Your task to perform on an android device: see creations saved in the google photos Image 0: 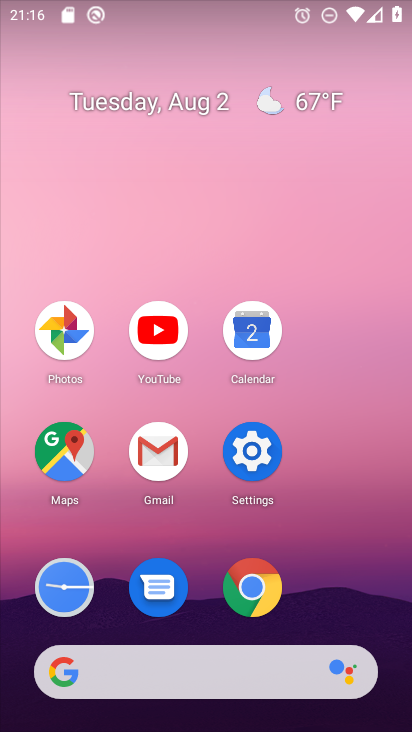
Step 0: click (62, 329)
Your task to perform on an android device: see creations saved in the google photos Image 1: 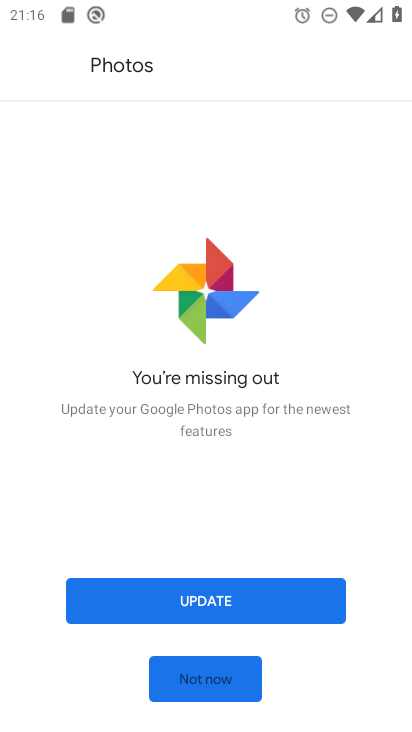
Step 1: click (205, 598)
Your task to perform on an android device: see creations saved in the google photos Image 2: 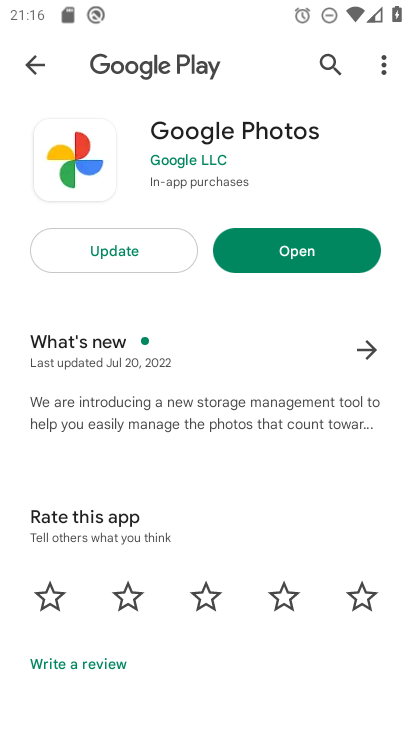
Step 2: click (129, 258)
Your task to perform on an android device: see creations saved in the google photos Image 3: 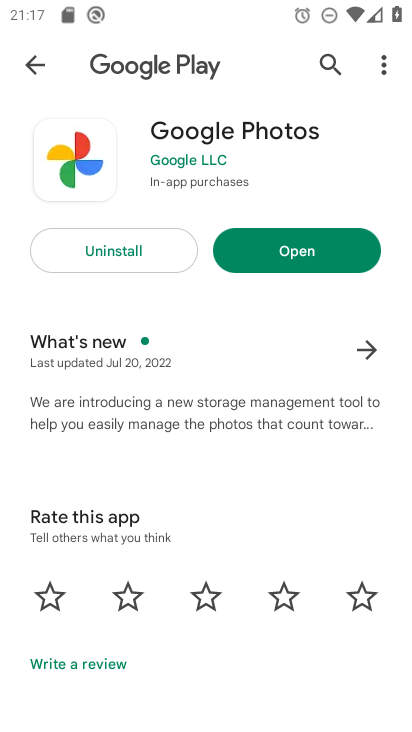
Step 3: click (295, 252)
Your task to perform on an android device: see creations saved in the google photos Image 4: 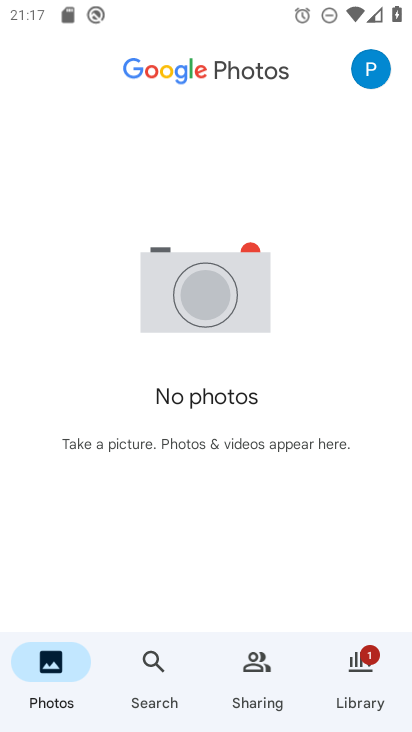
Step 4: click (151, 661)
Your task to perform on an android device: see creations saved in the google photos Image 5: 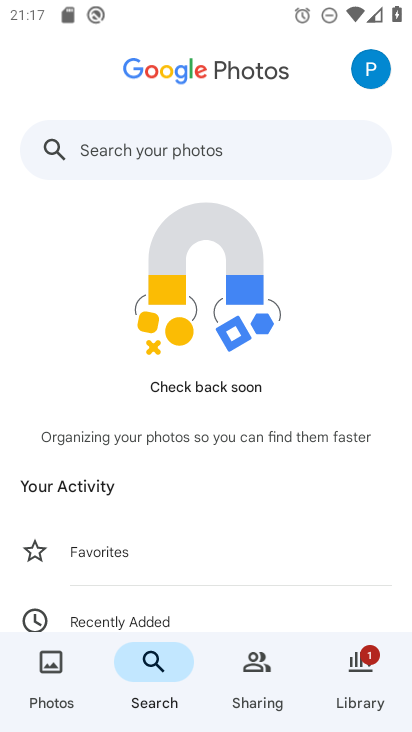
Step 5: click (110, 150)
Your task to perform on an android device: see creations saved in the google photos Image 6: 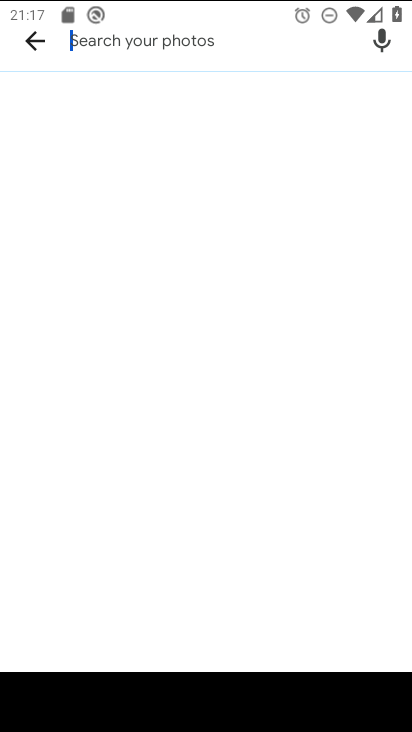
Step 6: type "creation"
Your task to perform on an android device: see creations saved in the google photos Image 7: 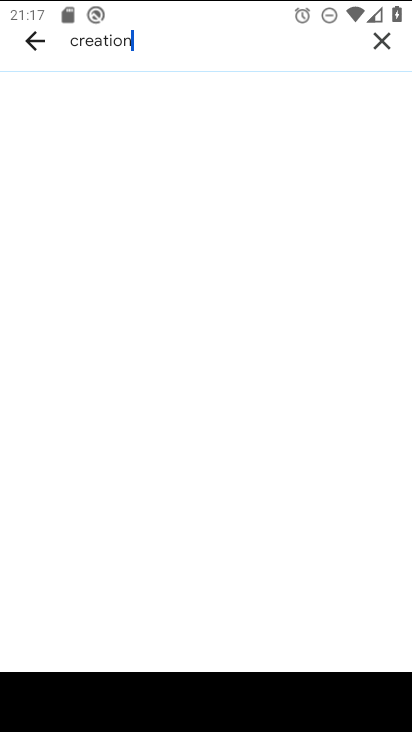
Step 7: click (145, 30)
Your task to perform on an android device: see creations saved in the google photos Image 8: 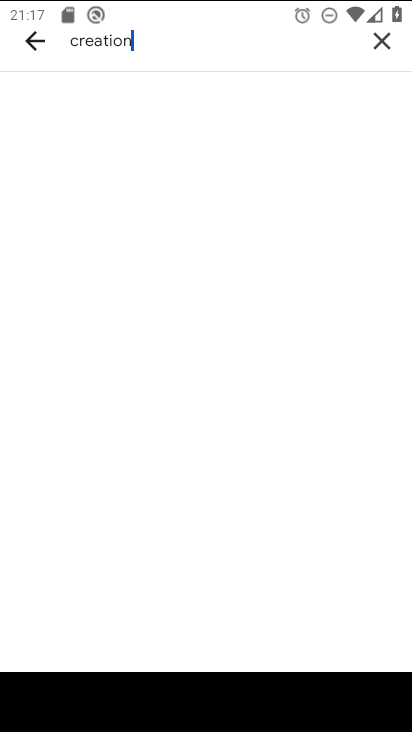
Step 8: click (139, 28)
Your task to perform on an android device: see creations saved in the google photos Image 9: 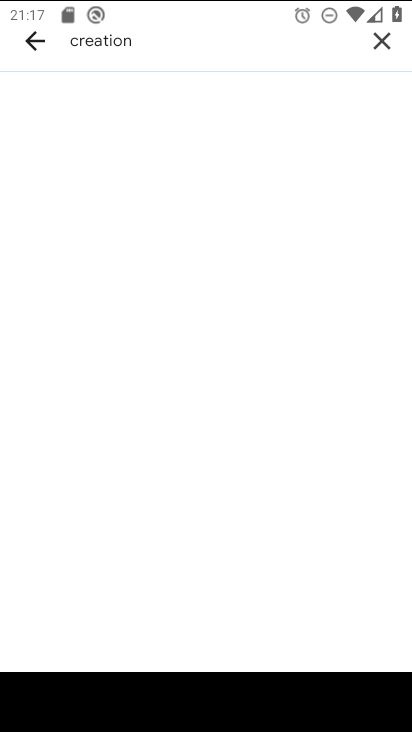
Step 9: click (34, 37)
Your task to perform on an android device: see creations saved in the google photos Image 10: 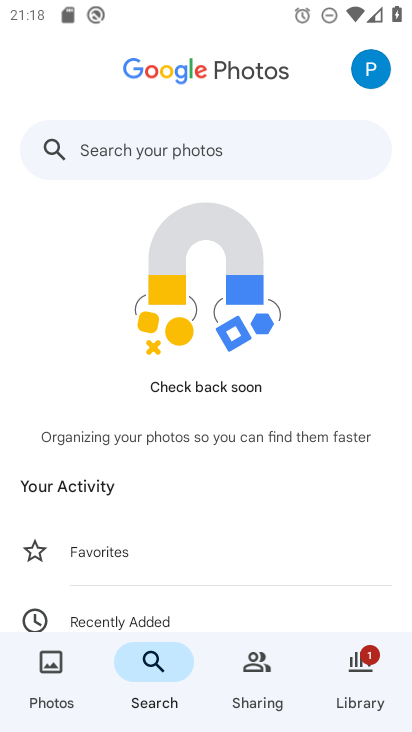
Step 10: drag from (234, 514) to (238, 148)
Your task to perform on an android device: see creations saved in the google photos Image 11: 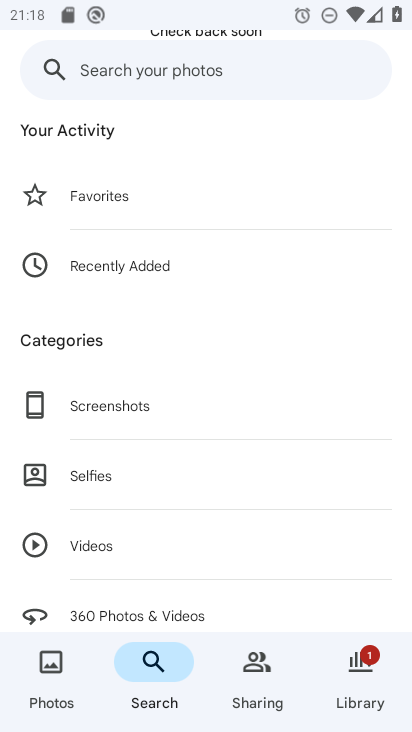
Step 11: drag from (183, 523) to (185, 207)
Your task to perform on an android device: see creations saved in the google photos Image 12: 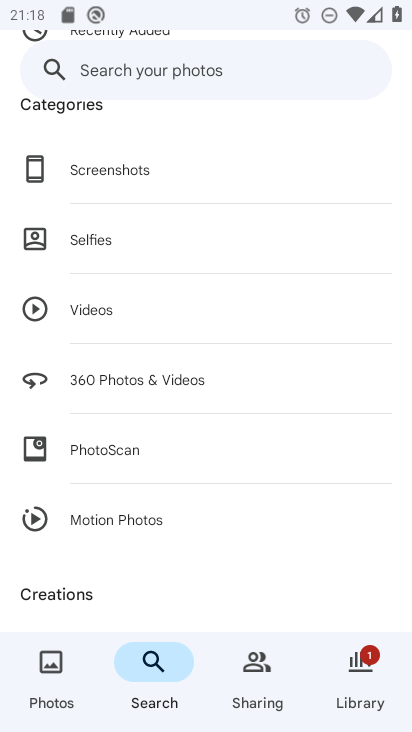
Step 12: drag from (144, 552) to (134, 316)
Your task to perform on an android device: see creations saved in the google photos Image 13: 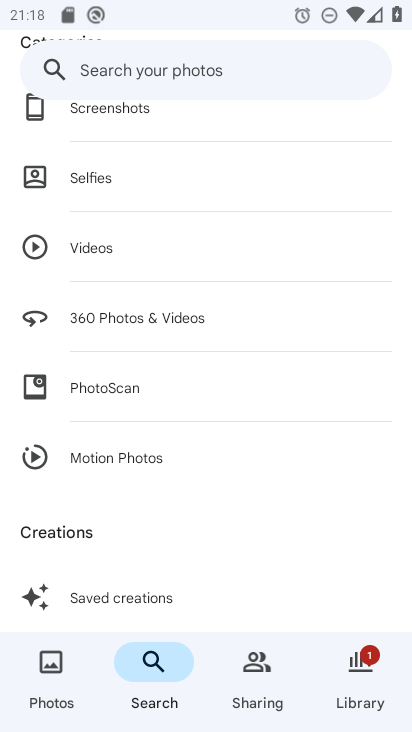
Step 13: click (130, 599)
Your task to perform on an android device: see creations saved in the google photos Image 14: 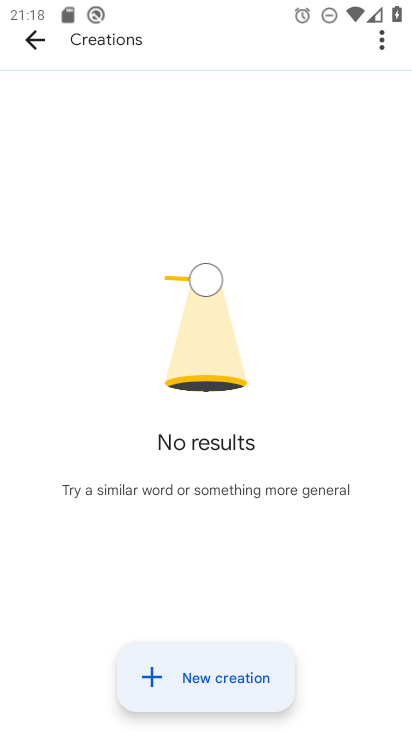
Step 14: task complete